Your task to perform on an android device: Open accessibility settings Image 0: 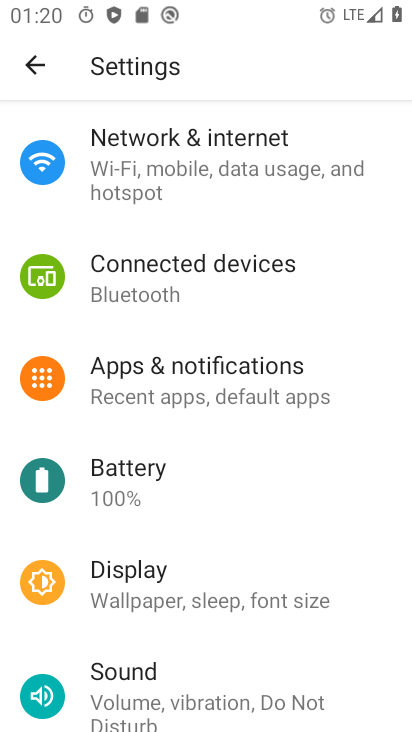
Step 0: drag from (291, 594) to (296, 307)
Your task to perform on an android device: Open accessibility settings Image 1: 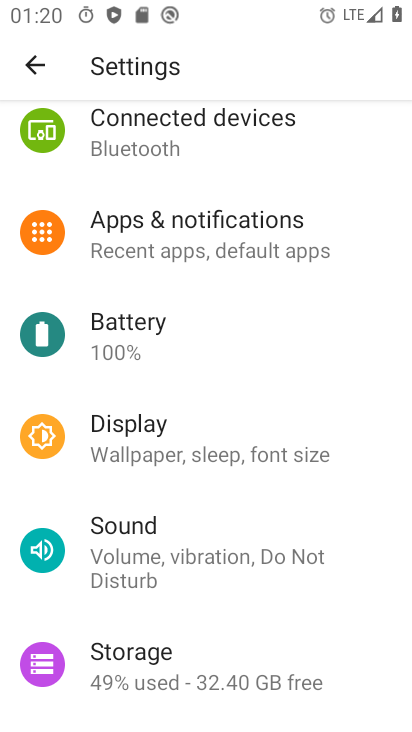
Step 1: drag from (267, 572) to (274, 299)
Your task to perform on an android device: Open accessibility settings Image 2: 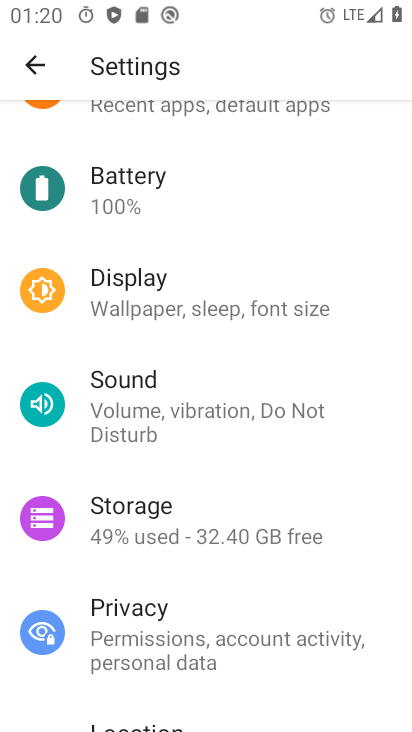
Step 2: drag from (289, 575) to (291, 234)
Your task to perform on an android device: Open accessibility settings Image 3: 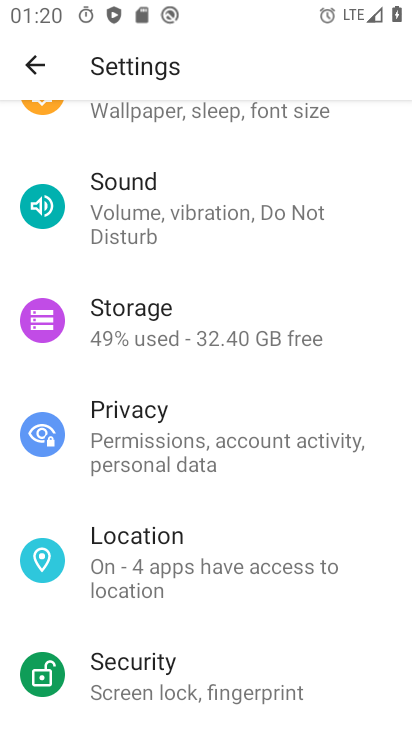
Step 3: drag from (245, 620) to (282, 217)
Your task to perform on an android device: Open accessibility settings Image 4: 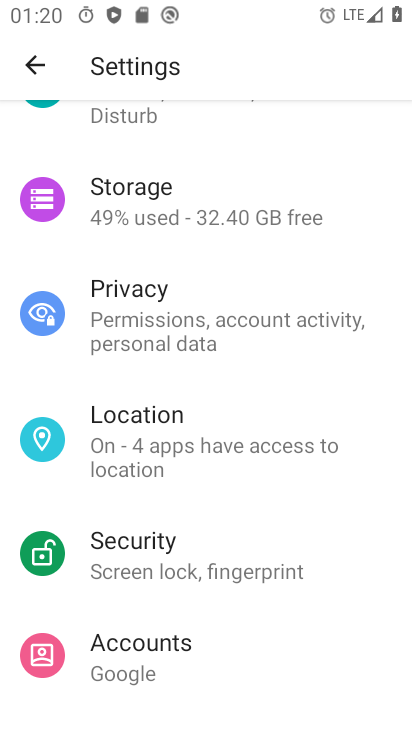
Step 4: drag from (241, 632) to (266, 266)
Your task to perform on an android device: Open accessibility settings Image 5: 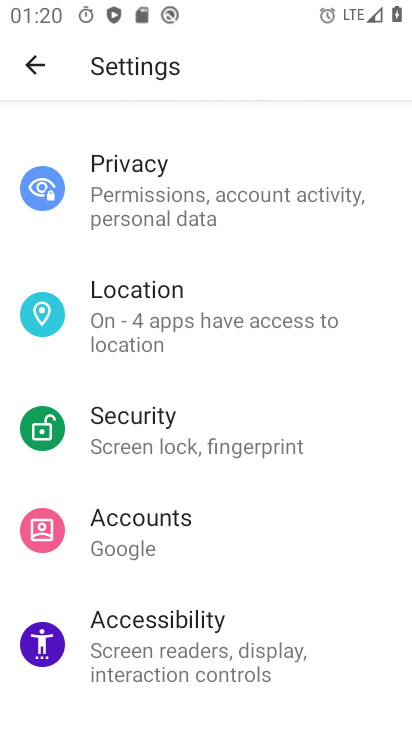
Step 5: click (208, 622)
Your task to perform on an android device: Open accessibility settings Image 6: 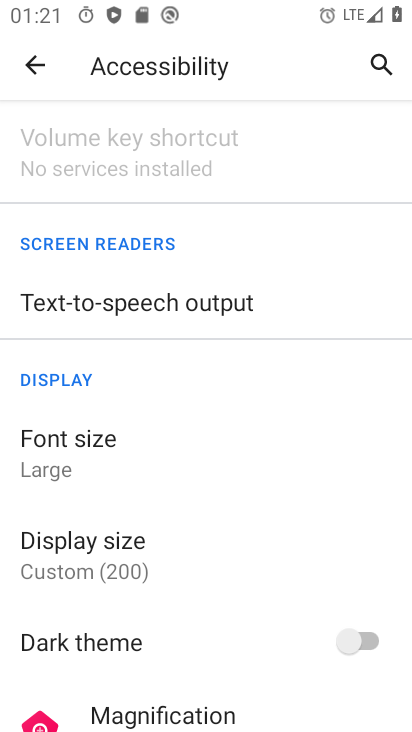
Step 6: task complete